Your task to perform on an android device: turn on showing notifications on the lock screen Image 0: 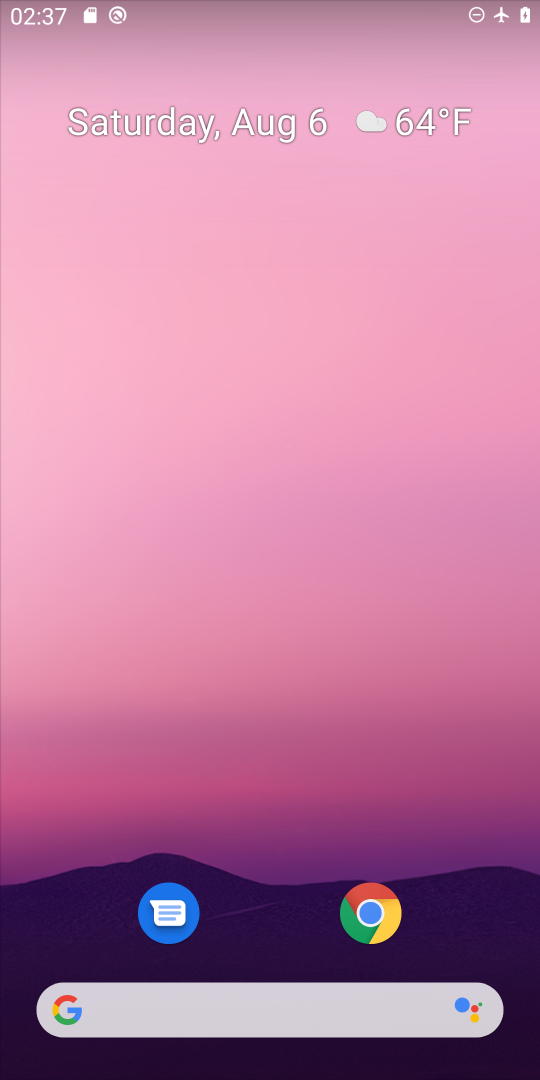
Step 0: press home button
Your task to perform on an android device: turn on showing notifications on the lock screen Image 1: 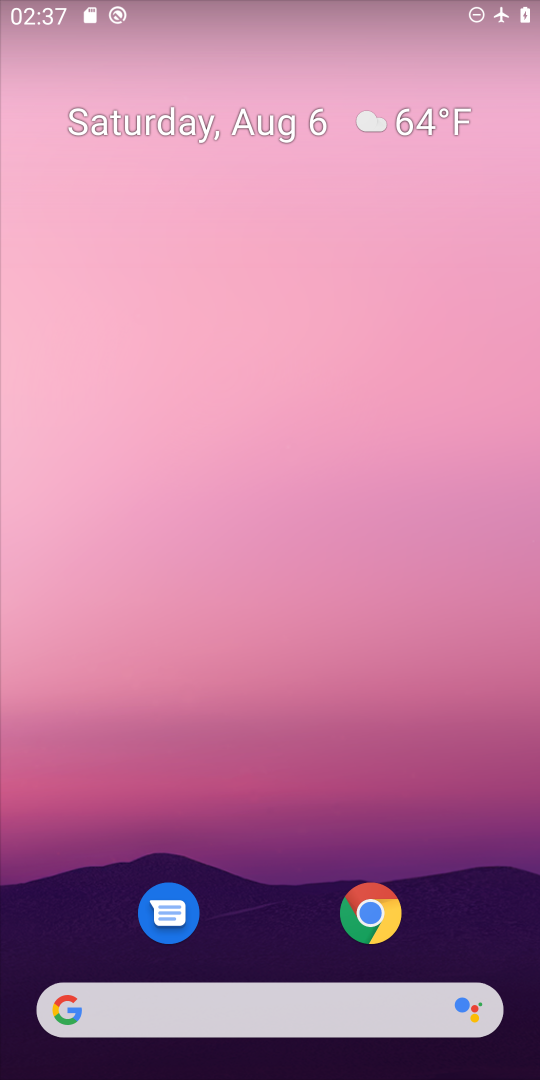
Step 1: drag from (447, 884) to (456, 243)
Your task to perform on an android device: turn on showing notifications on the lock screen Image 2: 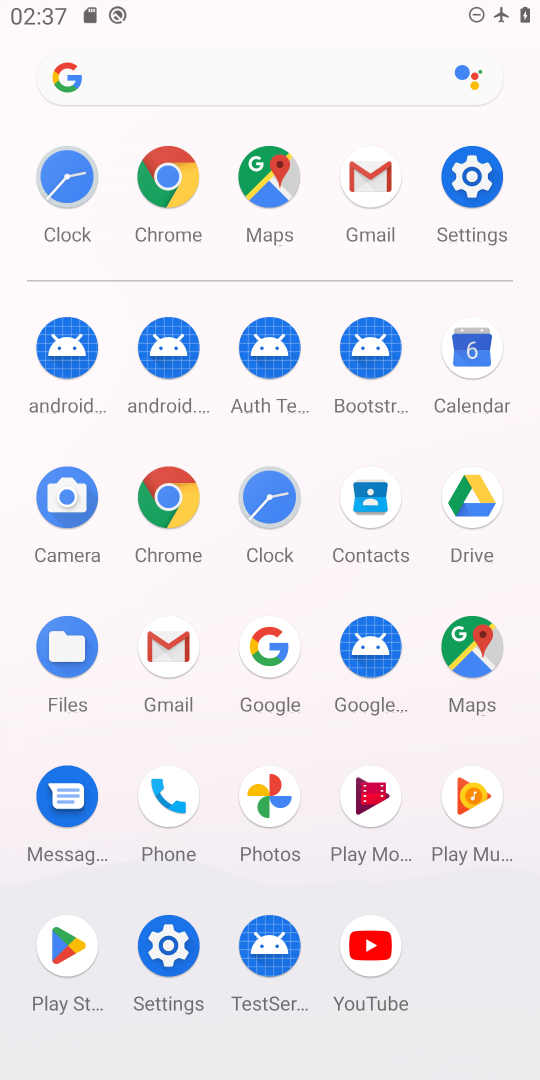
Step 2: click (467, 181)
Your task to perform on an android device: turn on showing notifications on the lock screen Image 3: 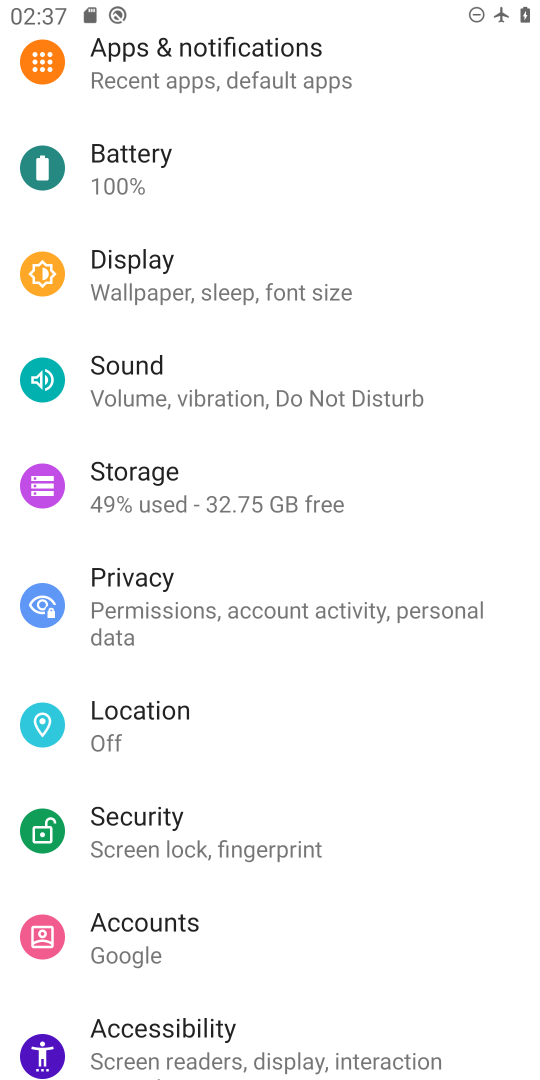
Step 3: drag from (466, 185) to (463, 292)
Your task to perform on an android device: turn on showing notifications on the lock screen Image 4: 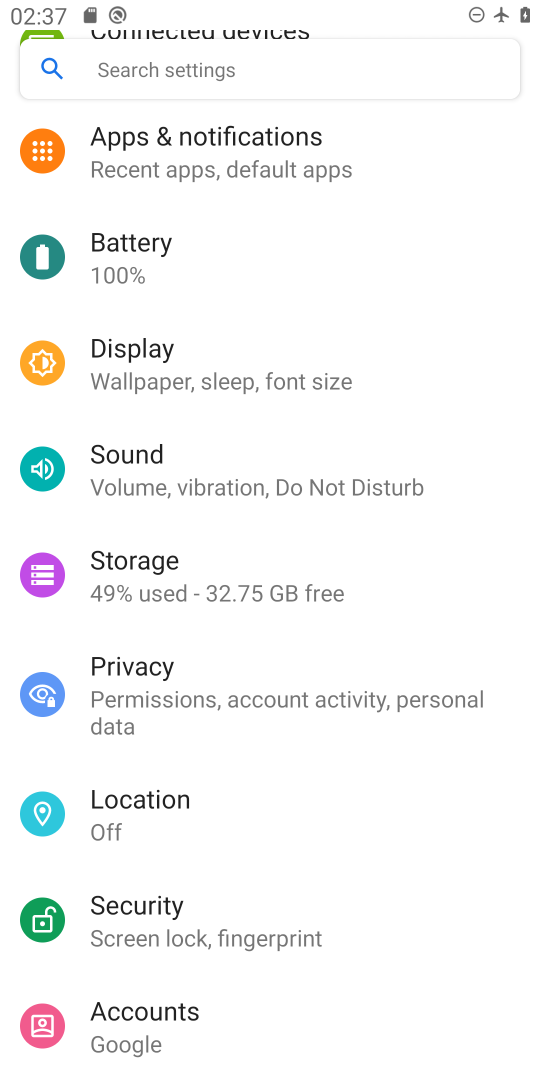
Step 4: drag from (465, 180) to (473, 283)
Your task to perform on an android device: turn on showing notifications on the lock screen Image 5: 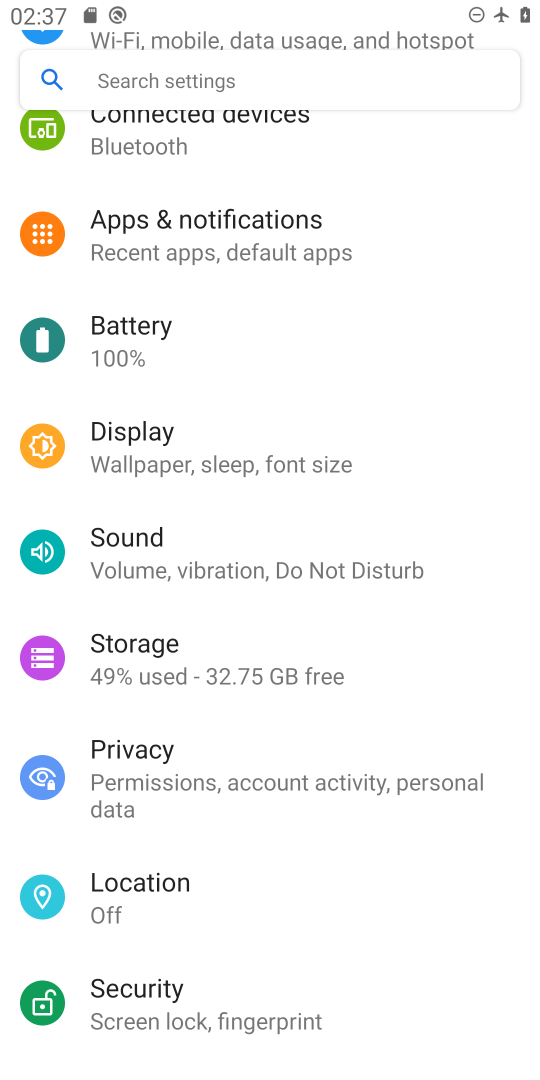
Step 5: drag from (471, 184) to (470, 321)
Your task to perform on an android device: turn on showing notifications on the lock screen Image 6: 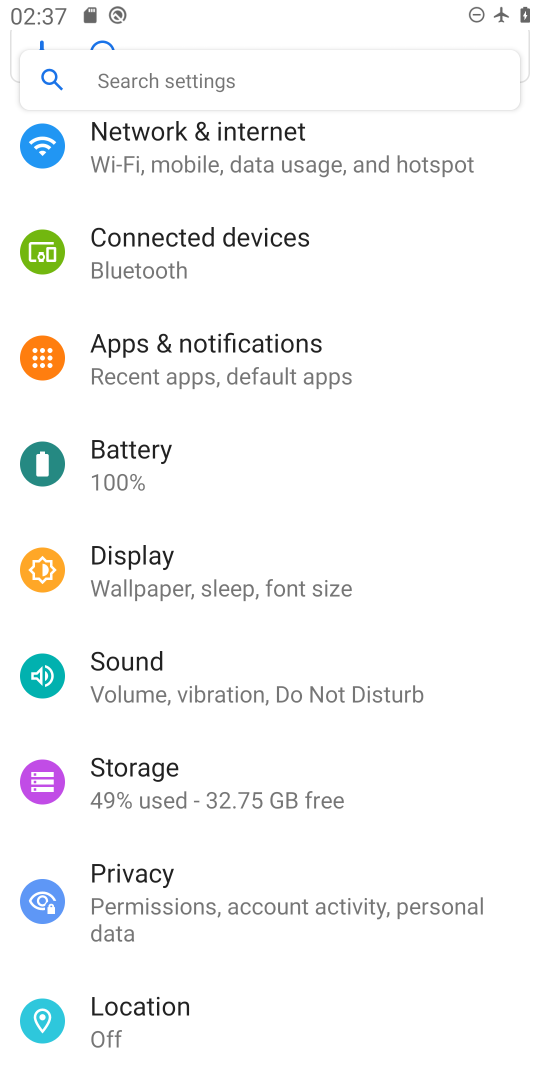
Step 6: drag from (461, 216) to (450, 409)
Your task to perform on an android device: turn on showing notifications on the lock screen Image 7: 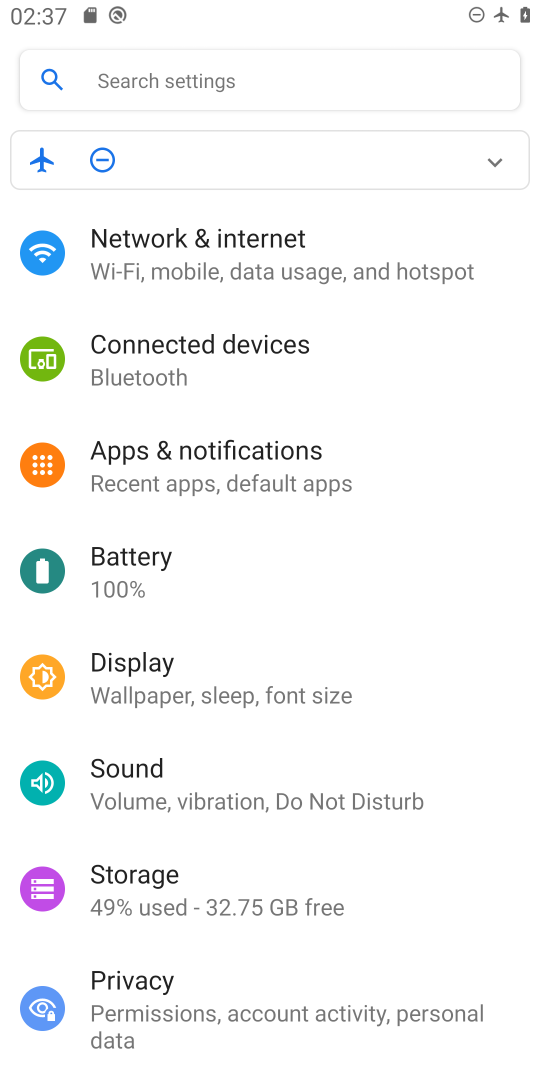
Step 7: click (417, 455)
Your task to perform on an android device: turn on showing notifications on the lock screen Image 8: 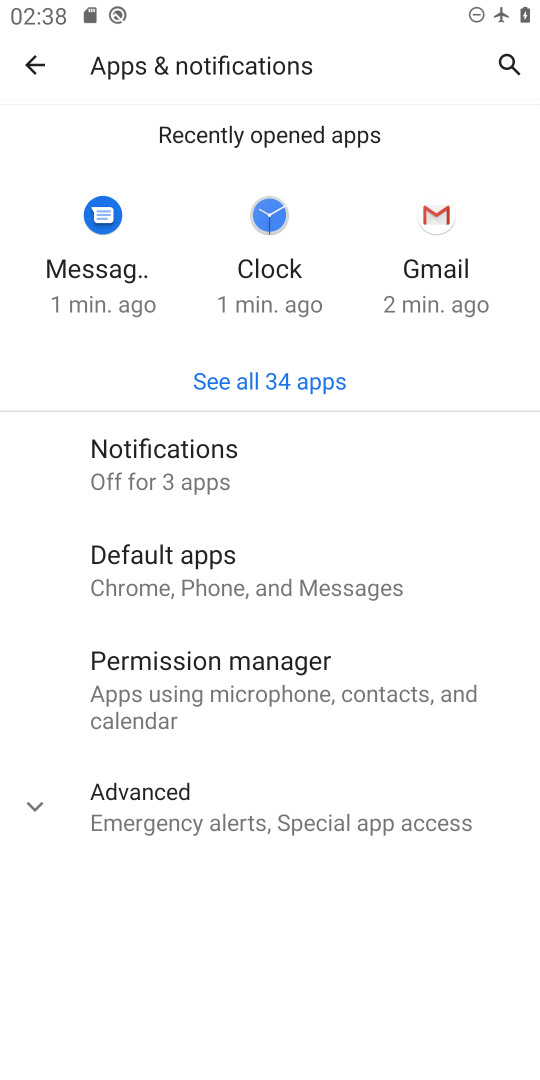
Step 8: click (394, 461)
Your task to perform on an android device: turn on showing notifications on the lock screen Image 9: 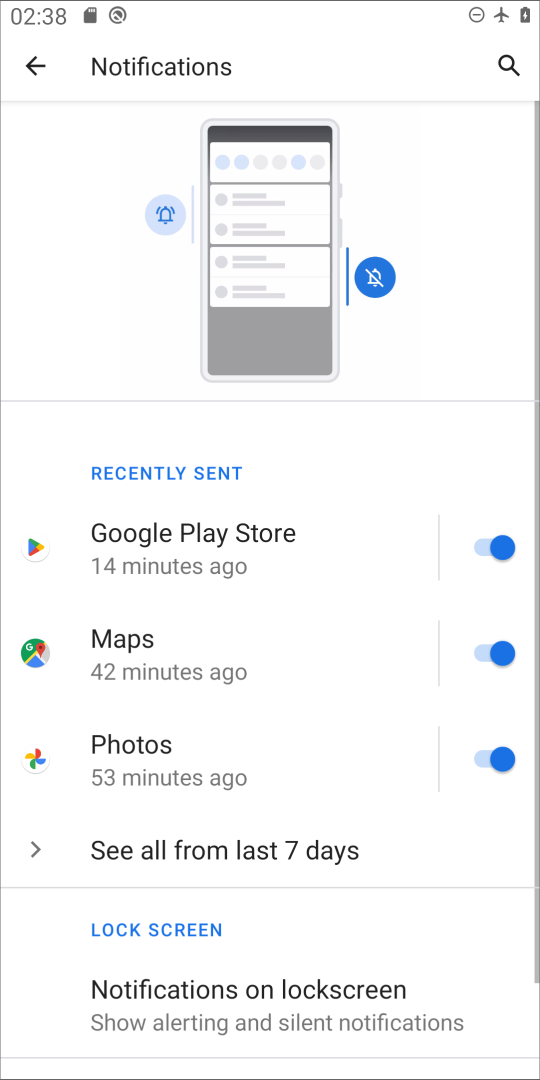
Step 9: drag from (389, 443) to (389, 356)
Your task to perform on an android device: turn on showing notifications on the lock screen Image 10: 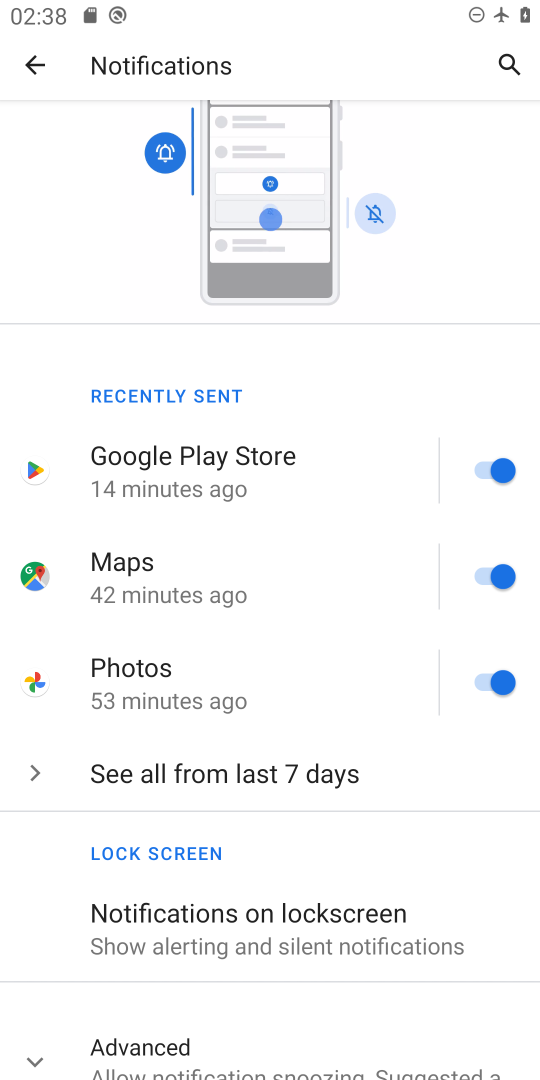
Step 10: click (277, 913)
Your task to perform on an android device: turn on showing notifications on the lock screen Image 11: 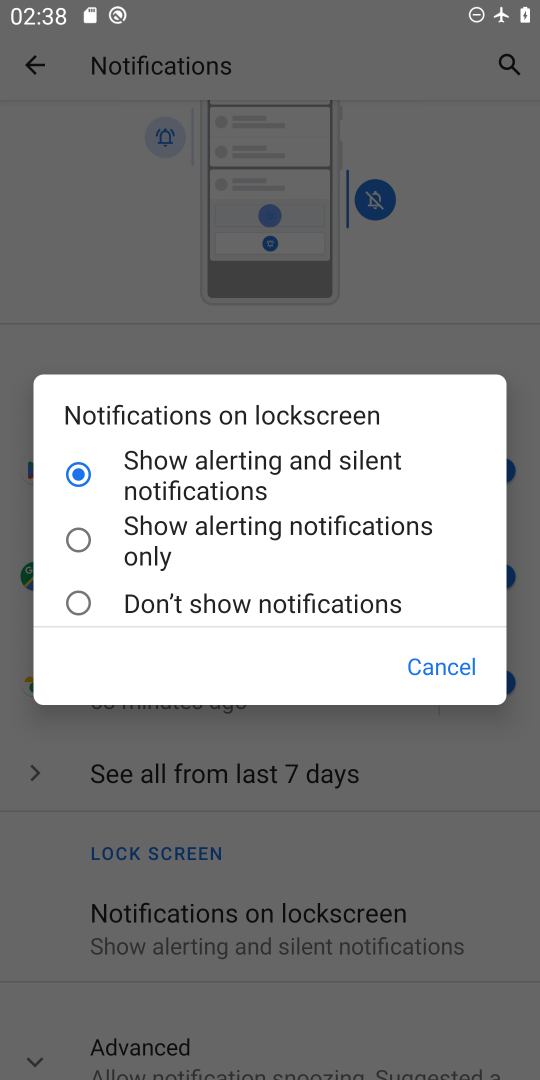
Step 11: task complete